Your task to perform on an android device: empty trash in google photos Image 0: 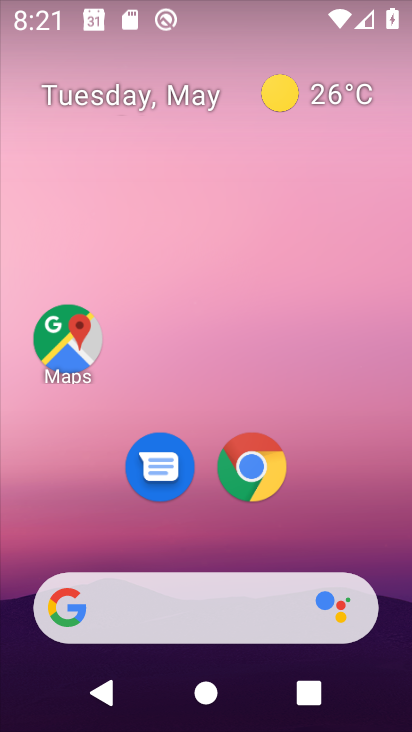
Step 0: drag from (403, 709) to (381, 194)
Your task to perform on an android device: empty trash in google photos Image 1: 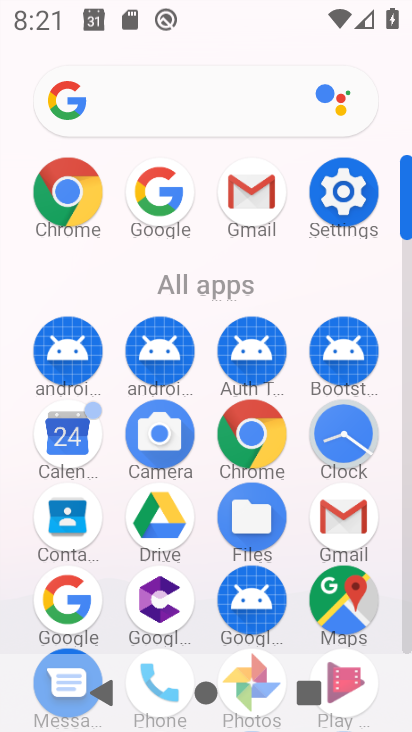
Step 1: drag from (201, 619) to (184, 384)
Your task to perform on an android device: empty trash in google photos Image 2: 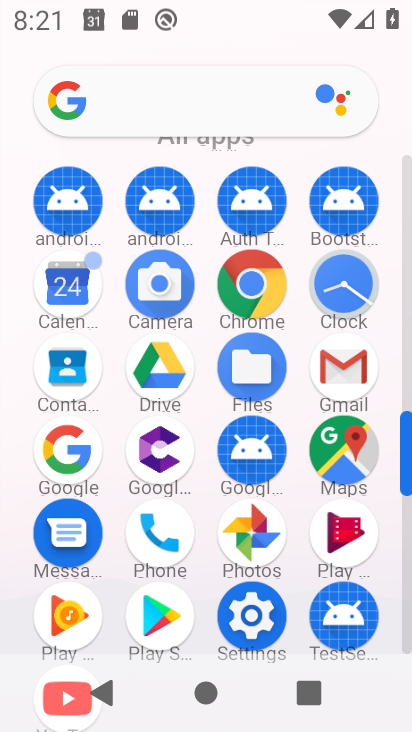
Step 2: click (247, 539)
Your task to perform on an android device: empty trash in google photos Image 3: 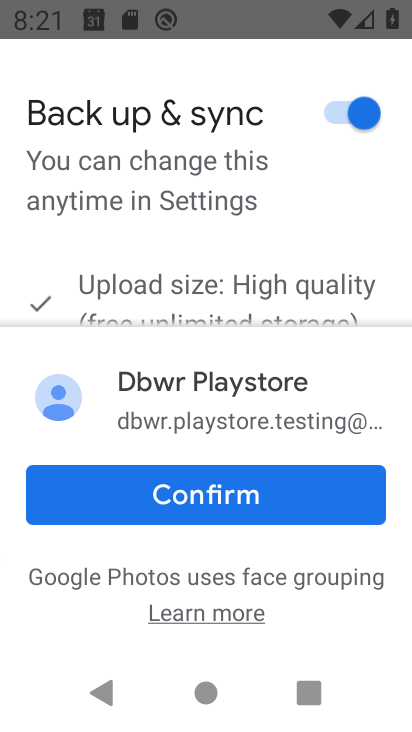
Step 3: click (267, 497)
Your task to perform on an android device: empty trash in google photos Image 4: 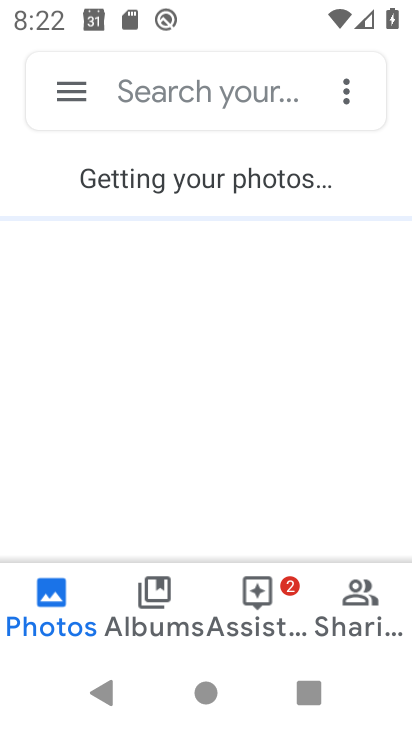
Step 4: click (73, 83)
Your task to perform on an android device: empty trash in google photos Image 5: 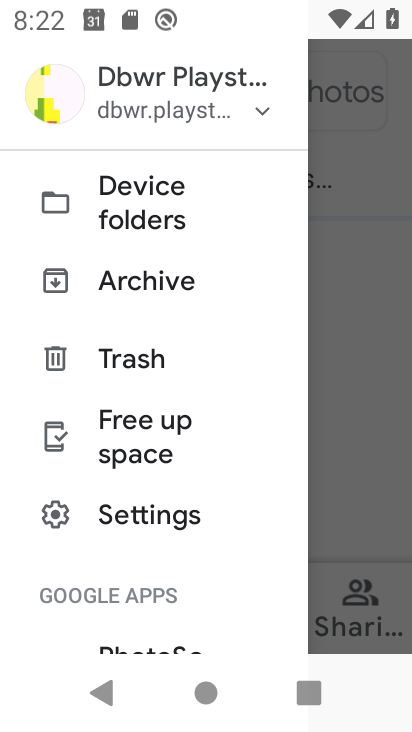
Step 5: click (132, 359)
Your task to perform on an android device: empty trash in google photos Image 6: 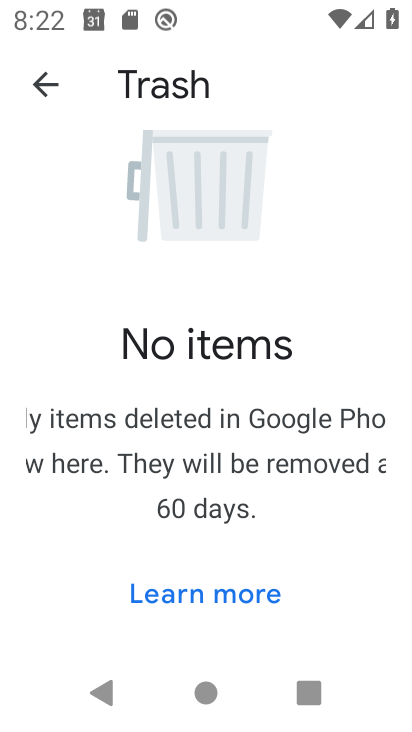
Step 6: task complete